Your task to perform on an android device: Go to Yahoo.com Image 0: 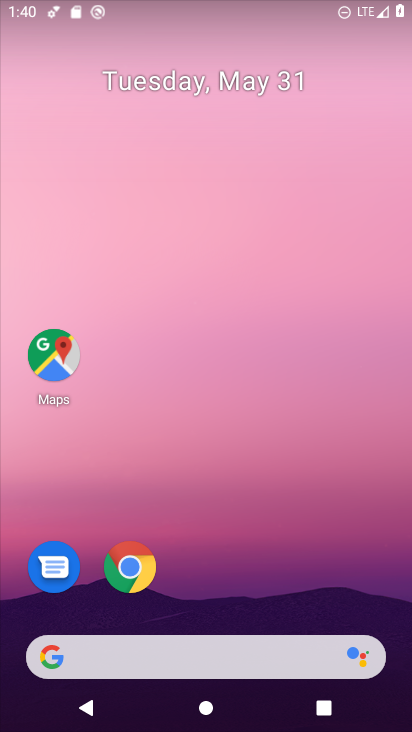
Step 0: click (139, 568)
Your task to perform on an android device: Go to Yahoo.com Image 1: 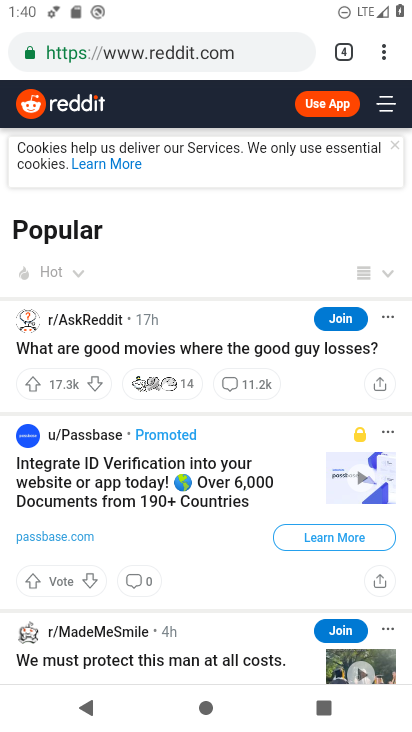
Step 1: click (346, 52)
Your task to perform on an android device: Go to Yahoo.com Image 2: 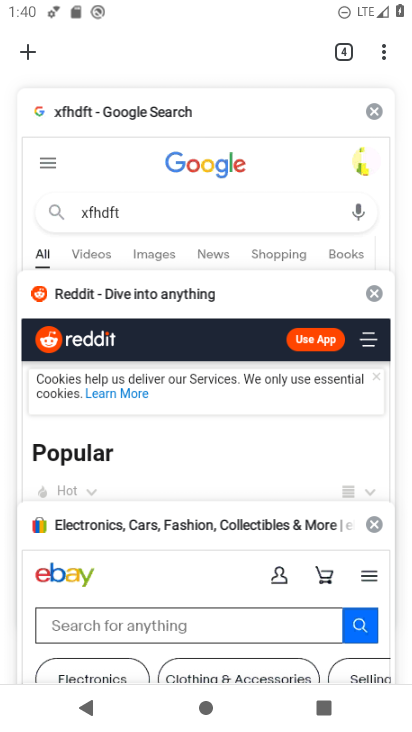
Step 2: click (26, 58)
Your task to perform on an android device: Go to Yahoo.com Image 3: 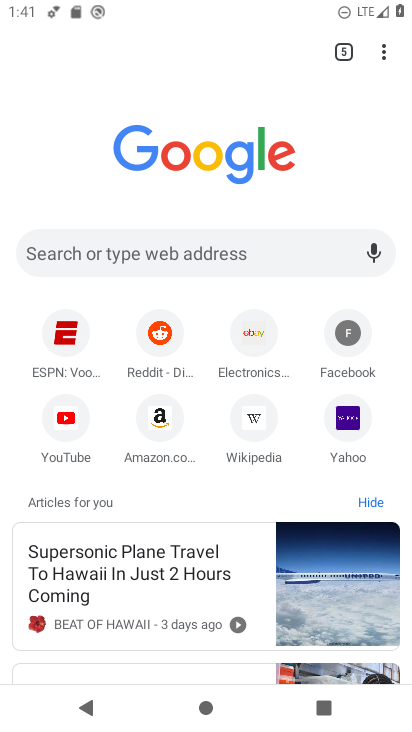
Step 3: click (321, 421)
Your task to perform on an android device: Go to Yahoo.com Image 4: 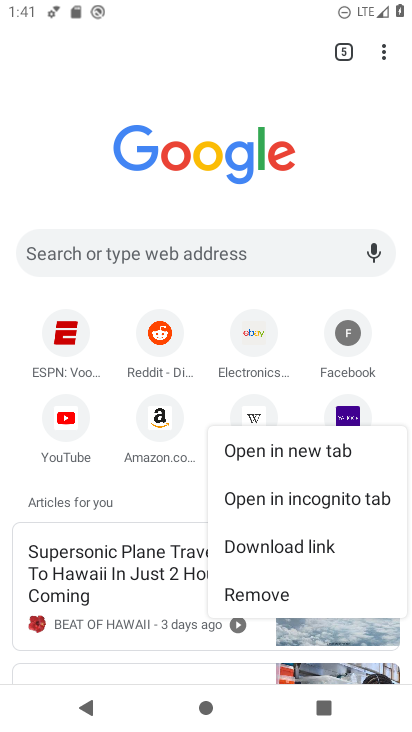
Step 4: click (335, 411)
Your task to perform on an android device: Go to Yahoo.com Image 5: 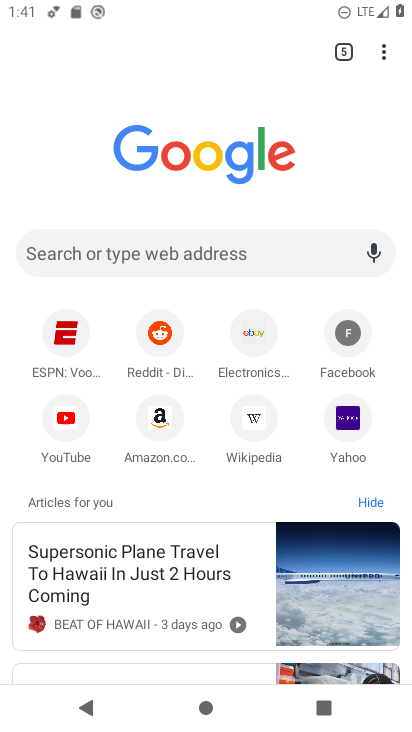
Step 5: click (336, 411)
Your task to perform on an android device: Go to Yahoo.com Image 6: 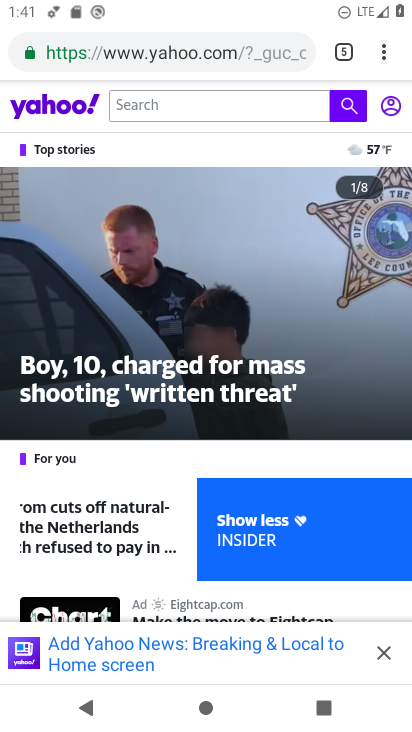
Step 6: task complete